Your task to perform on an android device: find photos in the google photos app Image 0: 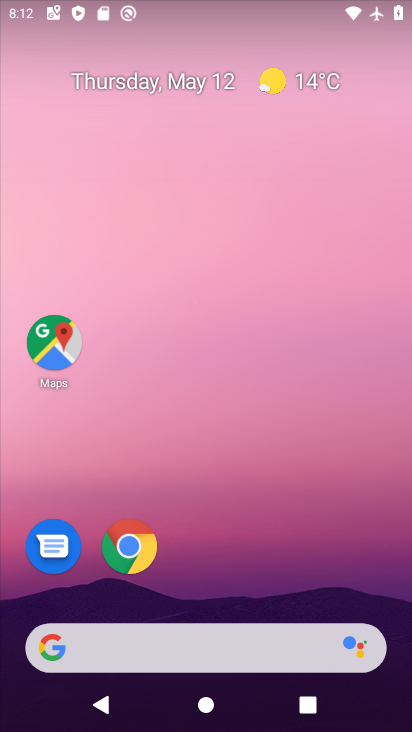
Step 0: drag from (151, 650) to (284, 180)
Your task to perform on an android device: find photos in the google photos app Image 1: 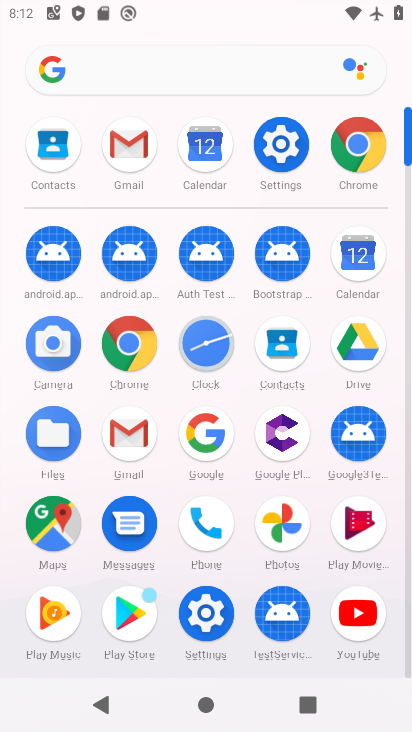
Step 1: click (278, 514)
Your task to perform on an android device: find photos in the google photos app Image 2: 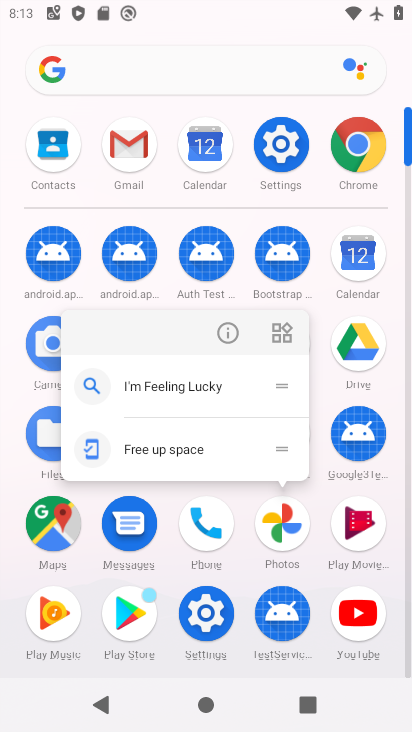
Step 2: click (279, 528)
Your task to perform on an android device: find photos in the google photos app Image 3: 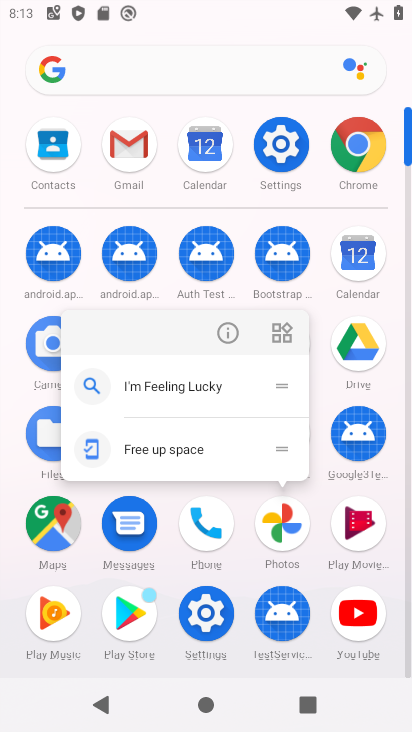
Step 3: click (280, 530)
Your task to perform on an android device: find photos in the google photos app Image 4: 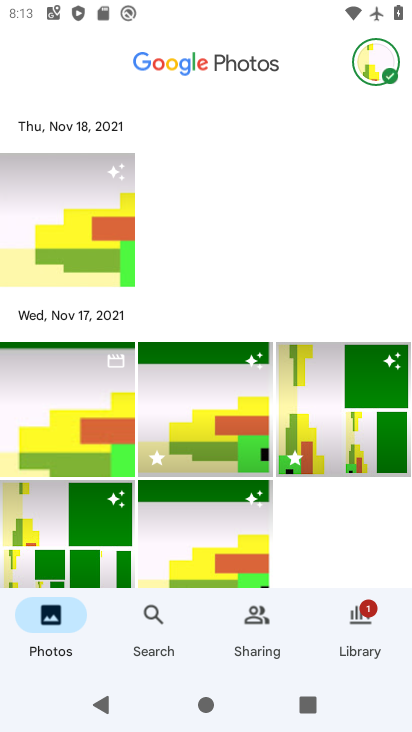
Step 4: click (62, 631)
Your task to perform on an android device: find photos in the google photos app Image 5: 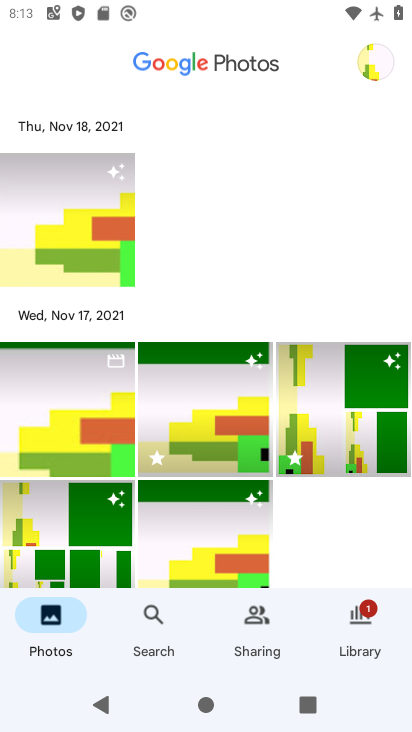
Step 5: task complete